Your task to perform on an android device: uninstall "Facebook Messenger" Image 0: 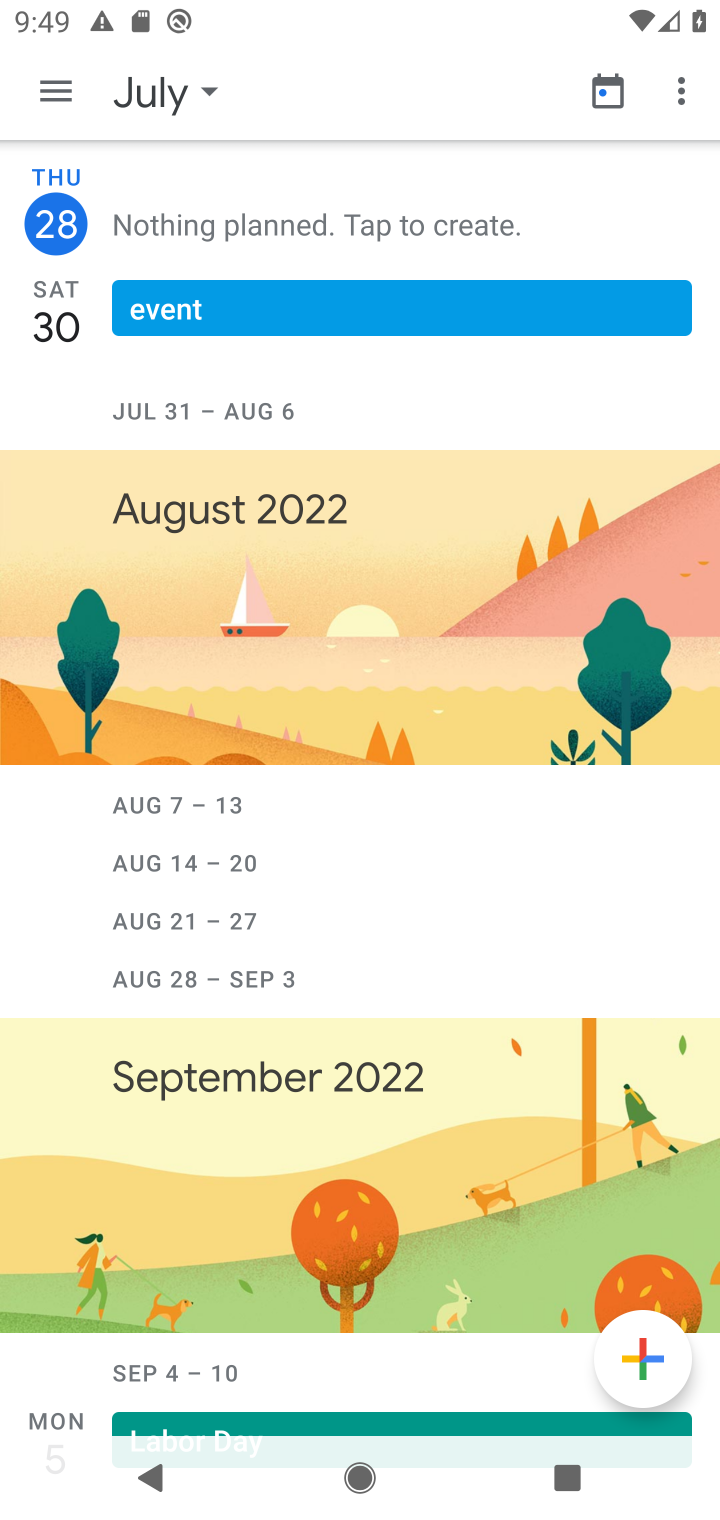
Step 0: press home button
Your task to perform on an android device: uninstall "Facebook Messenger" Image 1: 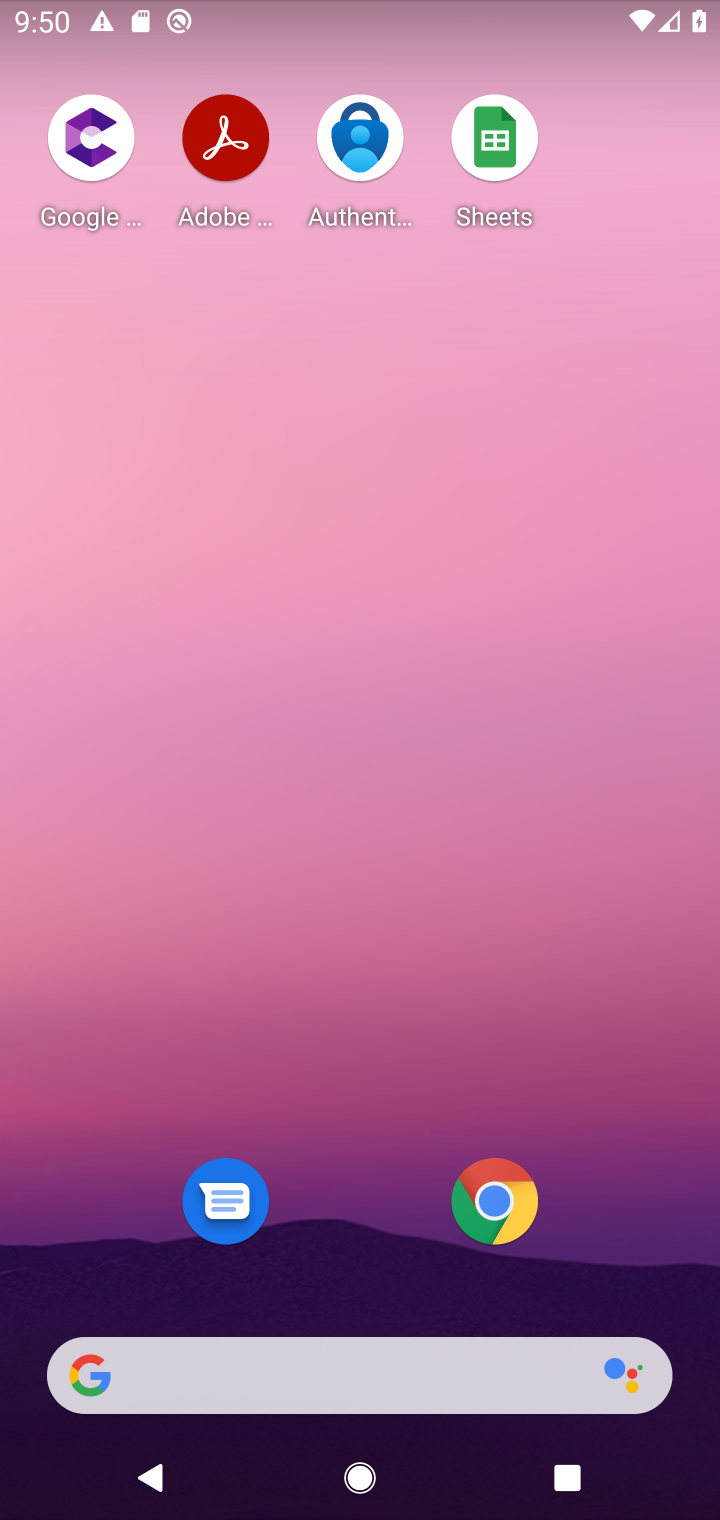
Step 1: drag from (281, 1185) to (259, 78)
Your task to perform on an android device: uninstall "Facebook Messenger" Image 2: 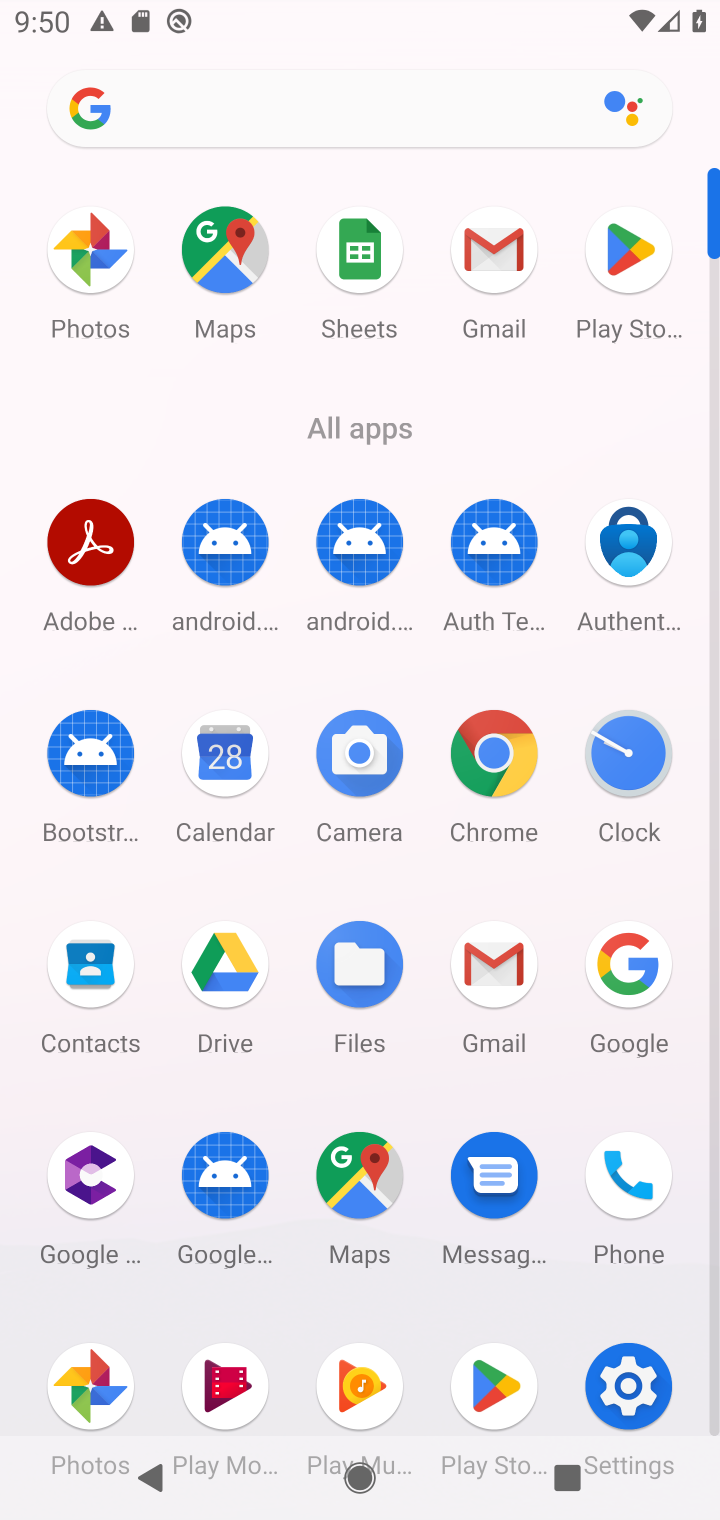
Step 2: click (617, 297)
Your task to perform on an android device: uninstall "Facebook Messenger" Image 3: 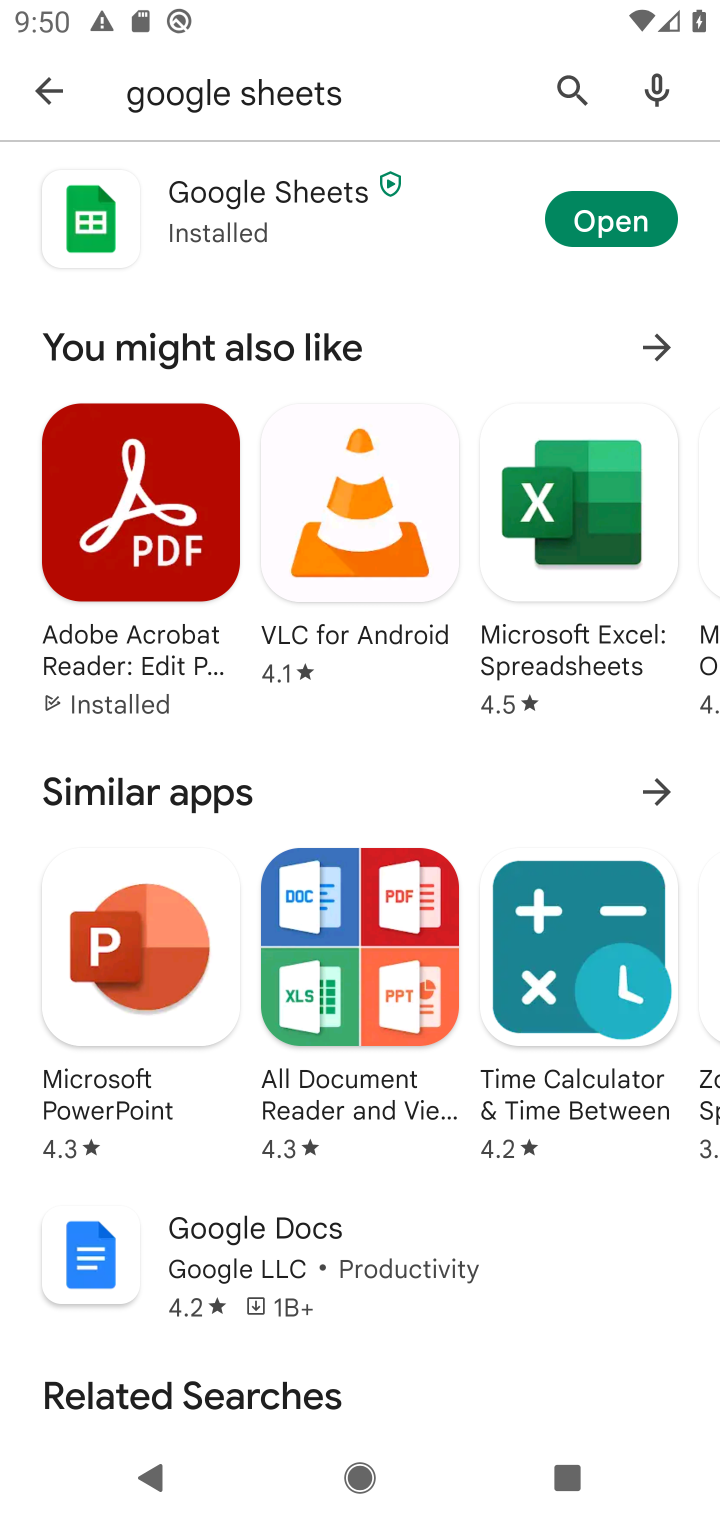
Step 3: click (312, 94)
Your task to perform on an android device: uninstall "Facebook Messenger" Image 4: 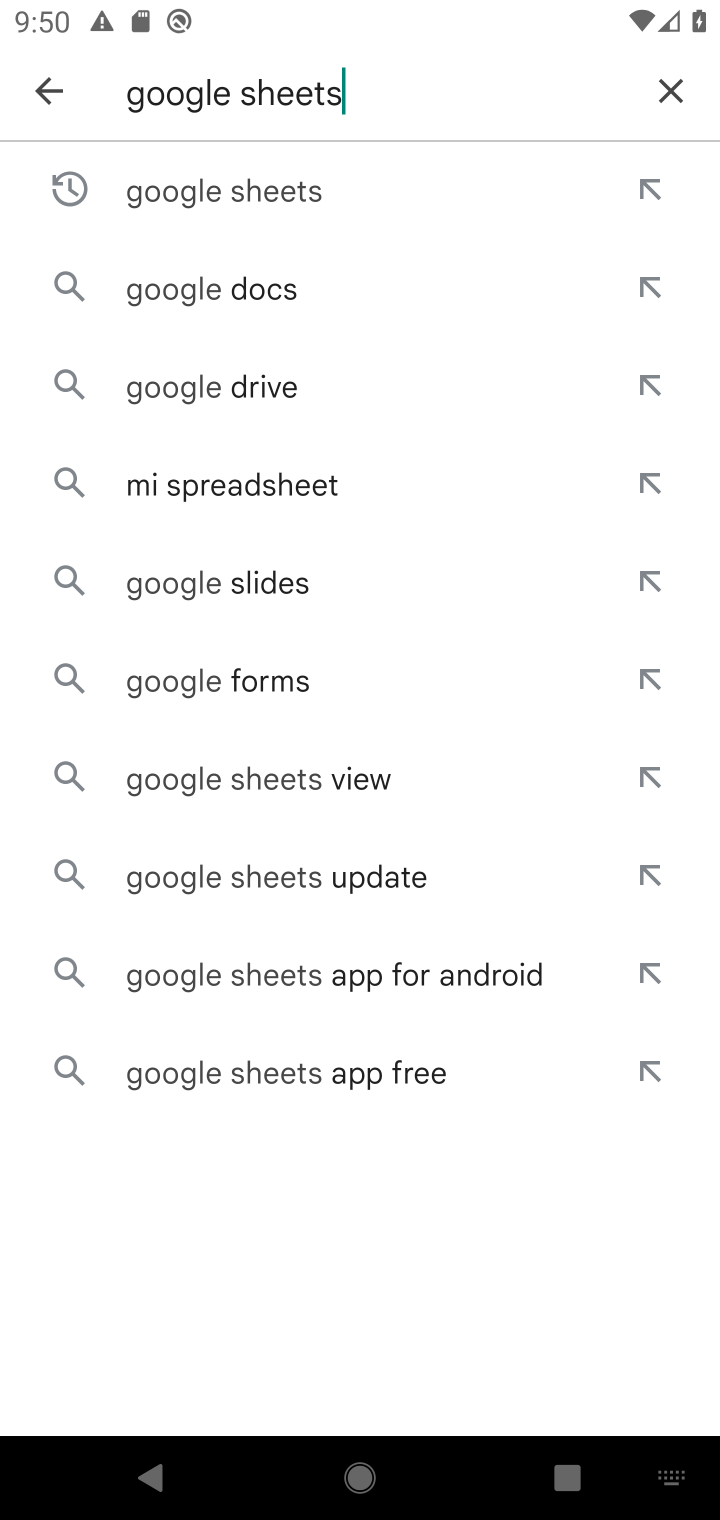
Step 4: click (665, 96)
Your task to perform on an android device: uninstall "Facebook Messenger" Image 5: 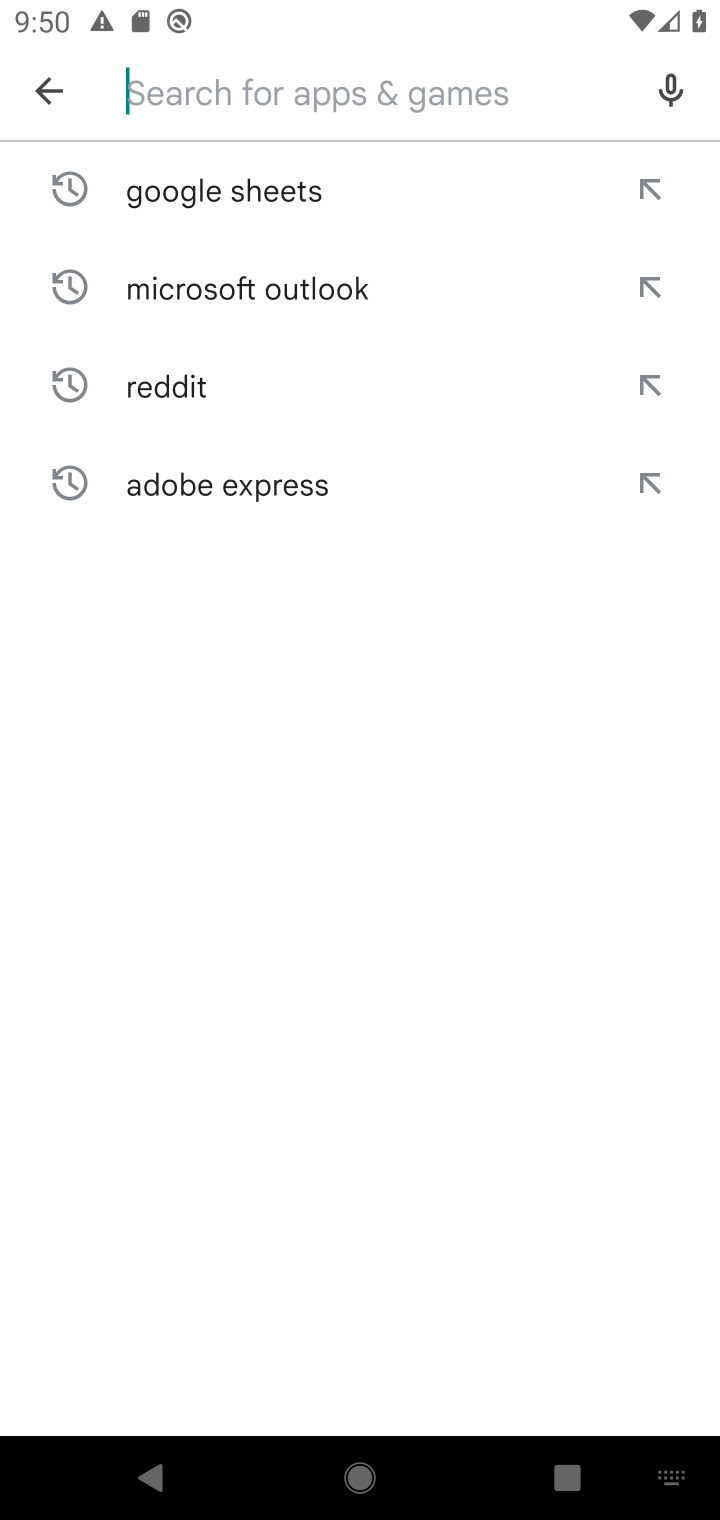
Step 5: type "facebook messenger"
Your task to perform on an android device: uninstall "Facebook Messenger" Image 6: 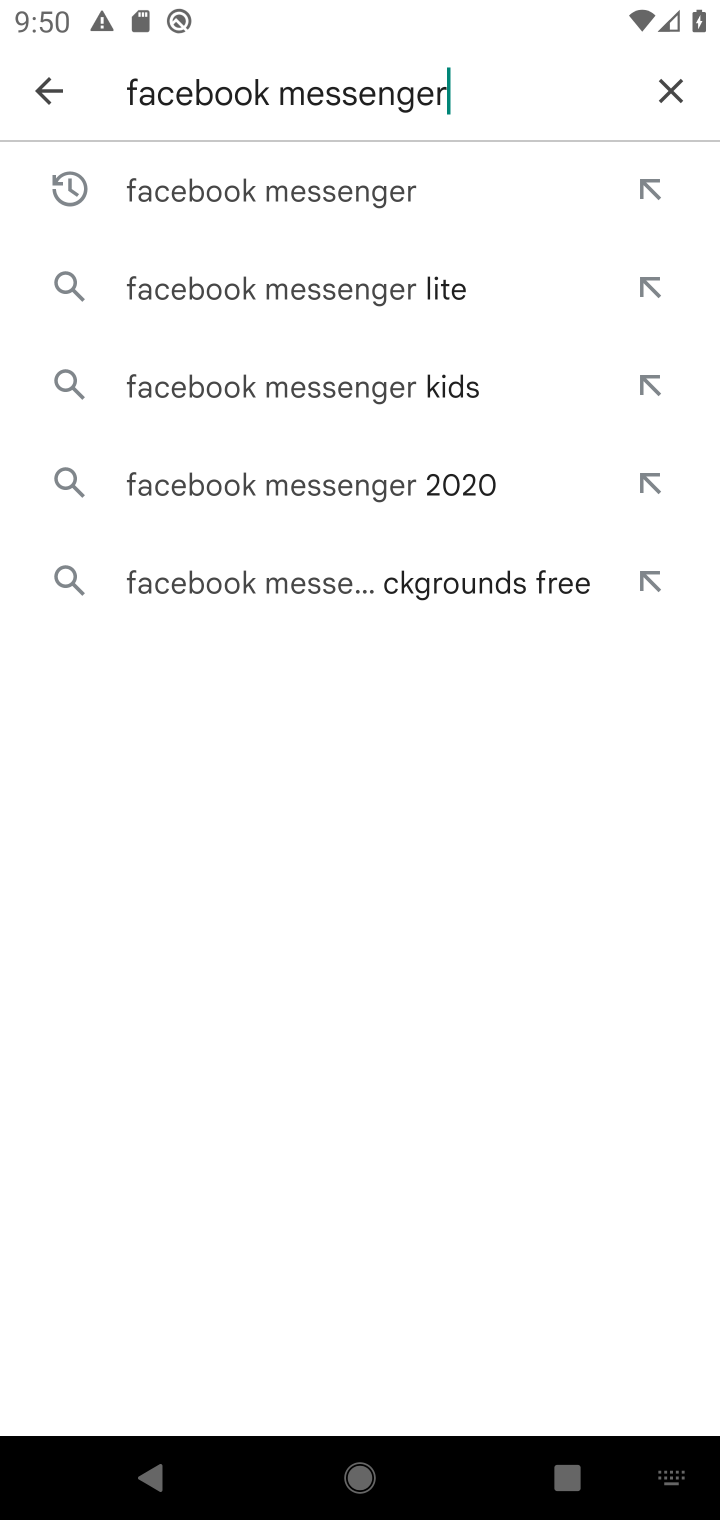
Step 6: click (197, 213)
Your task to perform on an android device: uninstall "Facebook Messenger" Image 7: 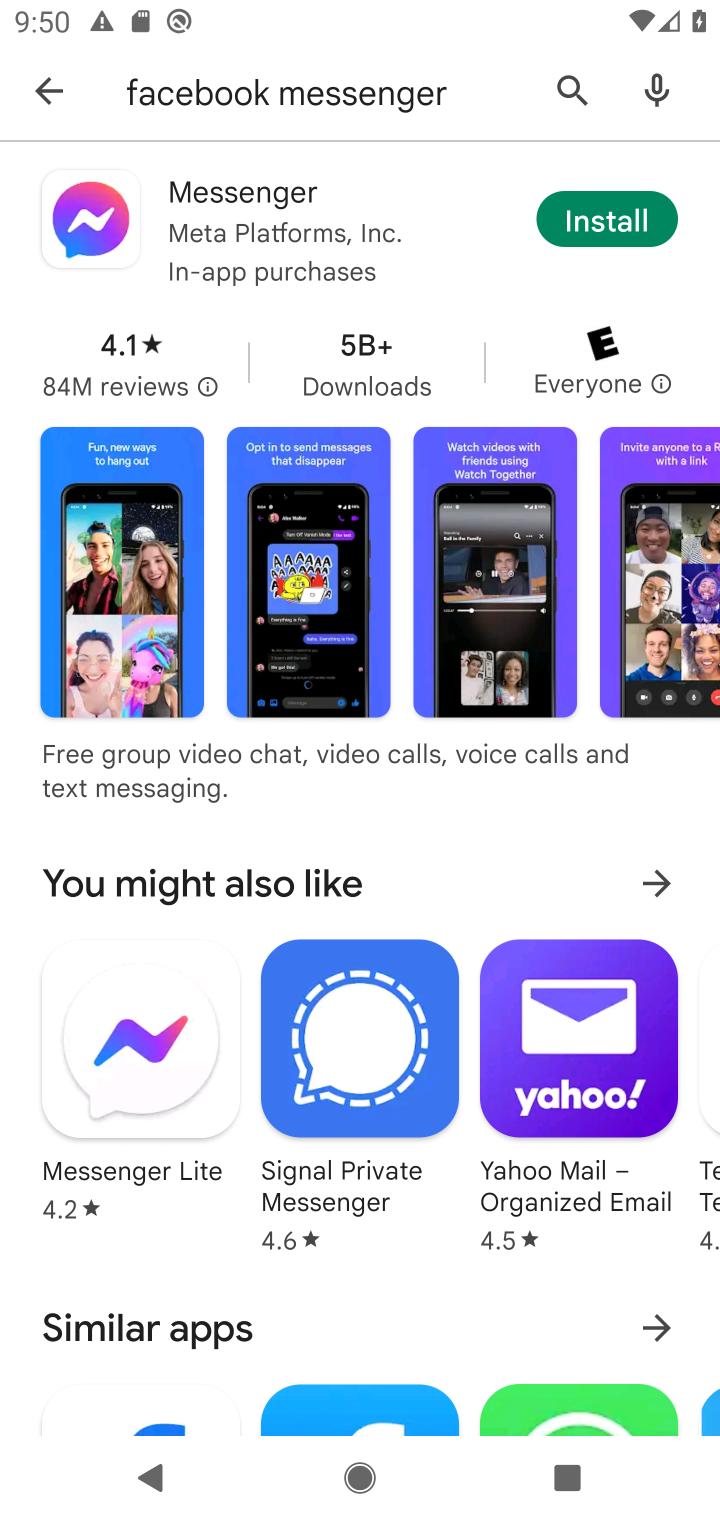
Step 7: task complete